Your task to perform on an android device: change the clock display to digital Image 0: 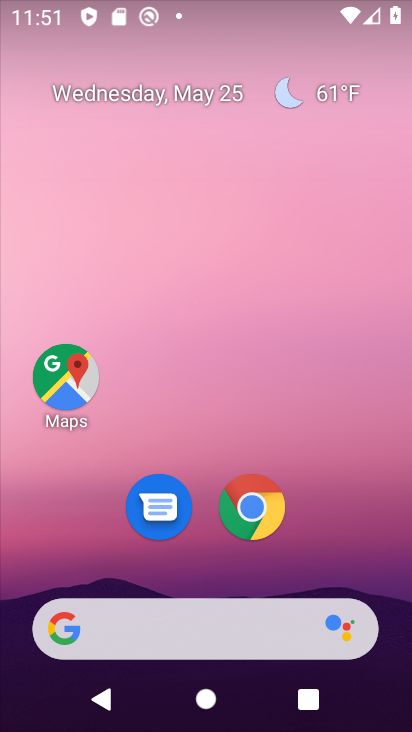
Step 0: drag from (359, 554) to (307, 184)
Your task to perform on an android device: change the clock display to digital Image 1: 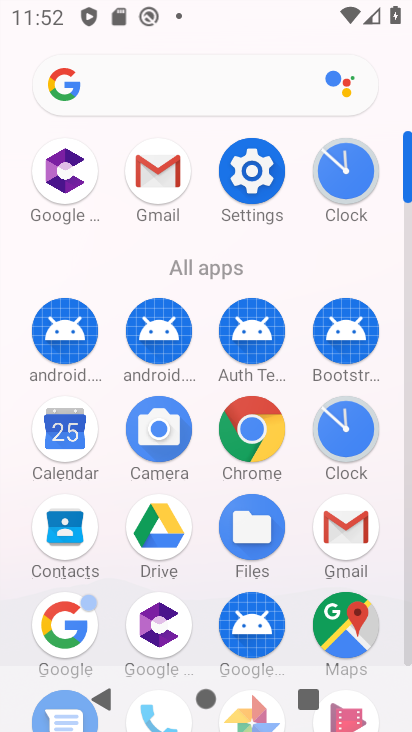
Step 1: click (339, 207)
Your task to perform on an android device: change the clock display to digital Image 2: 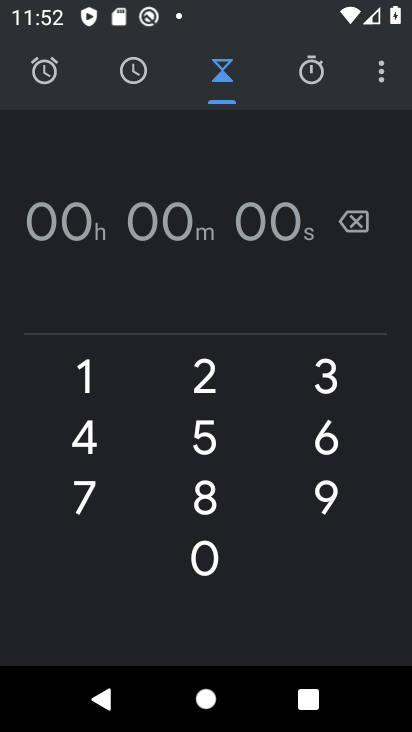
Step 2: click (380, 72)
Your task to perform on an android device: change the clock display to digital Image 3: 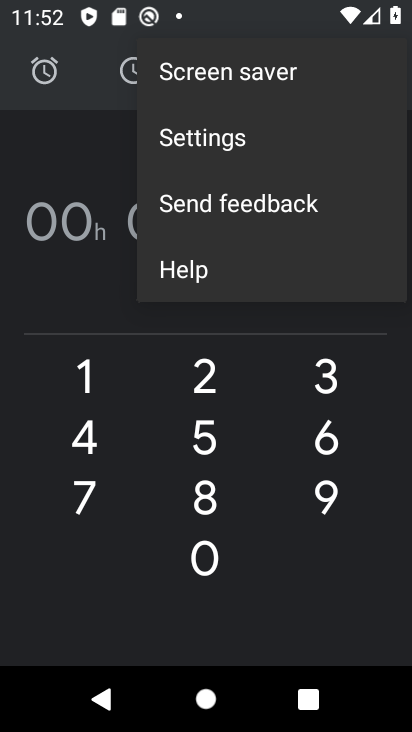
Step 3: click (245, 151)
Your task to perform on an android device: change the clock display to digital Image 4: 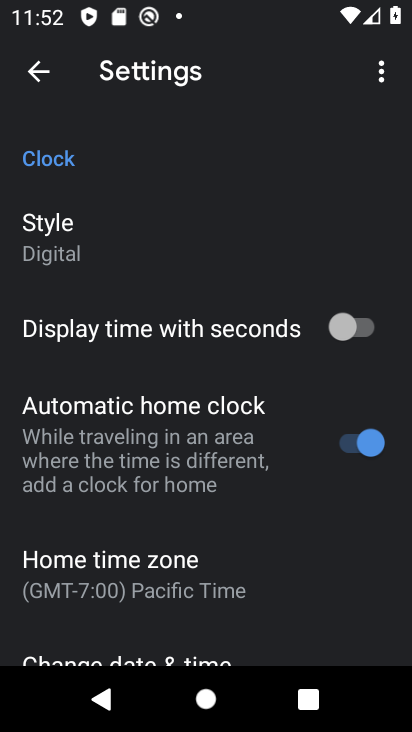
Step 4: click (177, 250)
Your task to perform on an android device: change the clock display to digital Image 5: 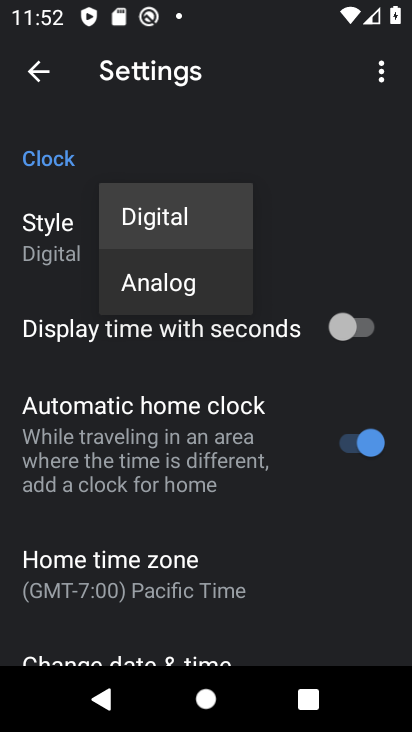
Step 5: task complete